Your task to perform on an android device: create a new album in the google photos Image 0: 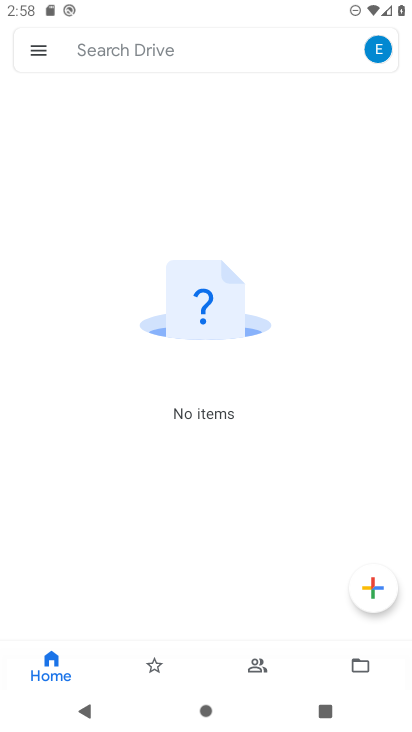
Step 0: press home button
Your task to perform on an android device: create a new album in the google photos Image 1: 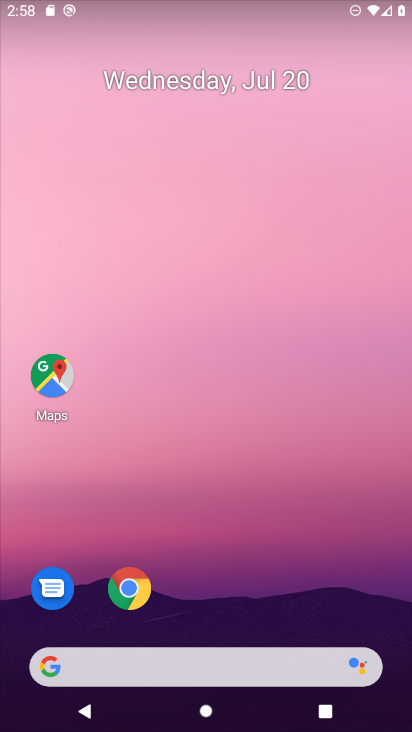
Step 1: drag from (173, 614) to (75, 16)
Your task to perform on an android device: create a new album in the google photos Image 2: 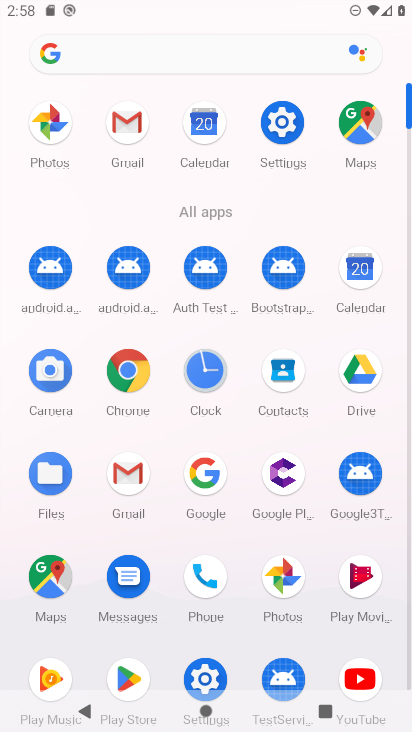
Step 2: click (278, 574)
Your task to perform on an android device: create a new album in the google photos Image 3: 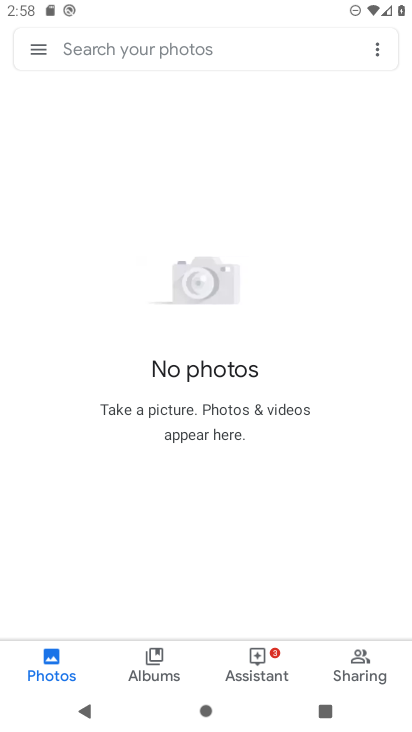
Step 3: click (156, 677)
Your task to perform on an android device: create a new album in the google photos Image 4: 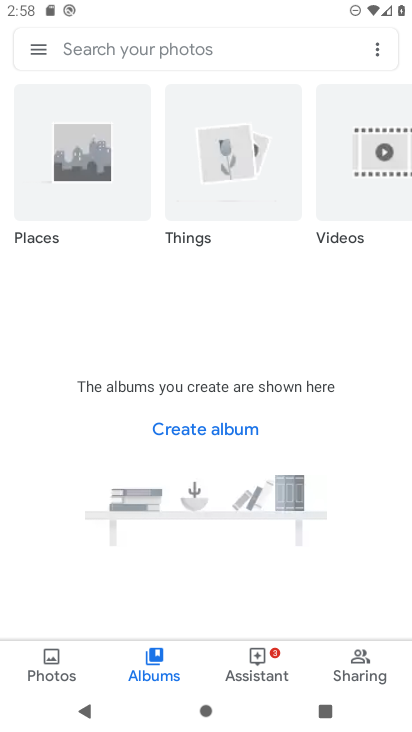
Step 4: click (185, 422)
Your task to perform on an android device: create a new album in the google photos Image 5: 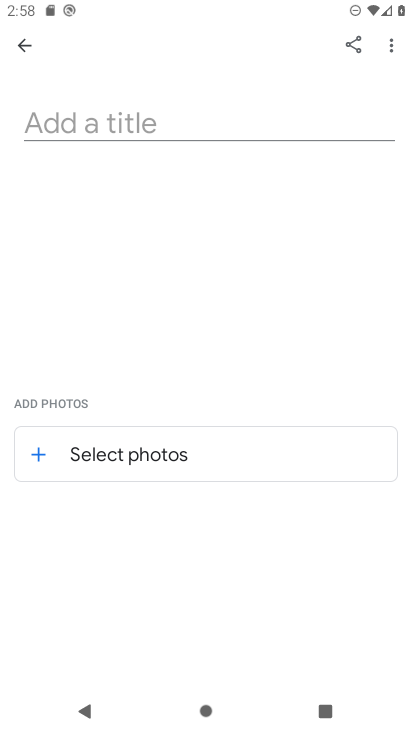
Step 5: click (35, 122)
Your task to perform on an android device: create a new album in the google photos Image 6: 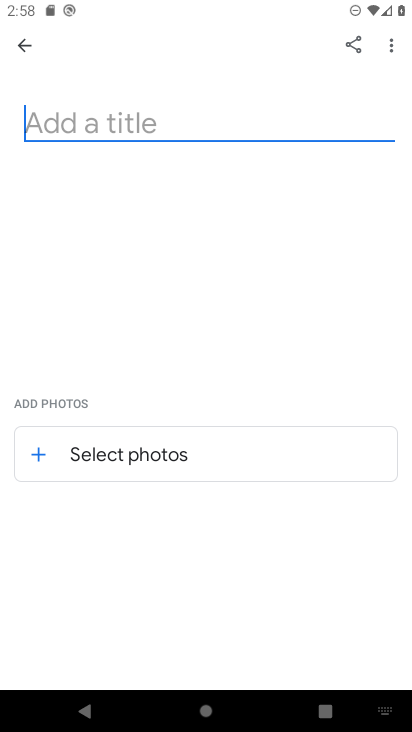
Step 6: type "oiik"
Your task to perform on an android device: create a new album in the google photos Image 7: 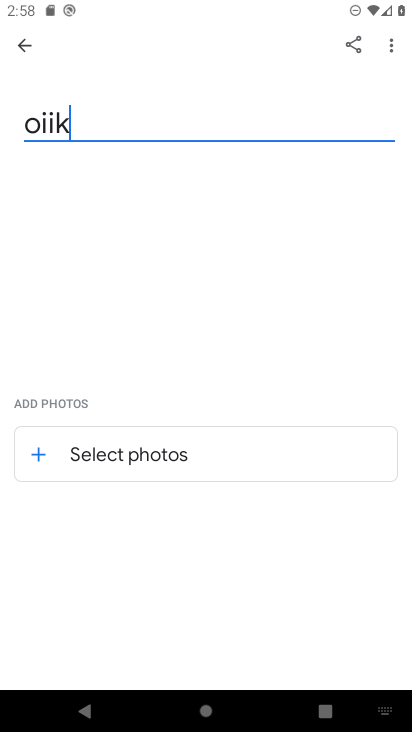
Step 7: task complete